Your task to perform on an android device: Go to Google maps Image 0: 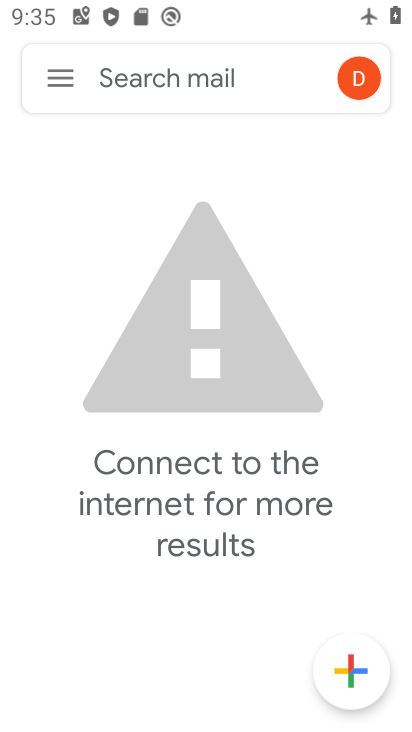
Step 0: press home button
Your task to perform on an android device: Go to Google maps Image 1: 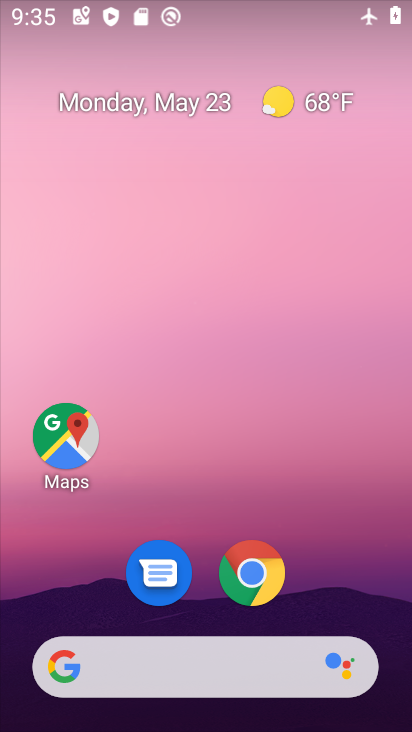
Step 1: drag from (225, 659) to (245, 9)
Your task to perform on an android device: Go to Google maps Image 2: 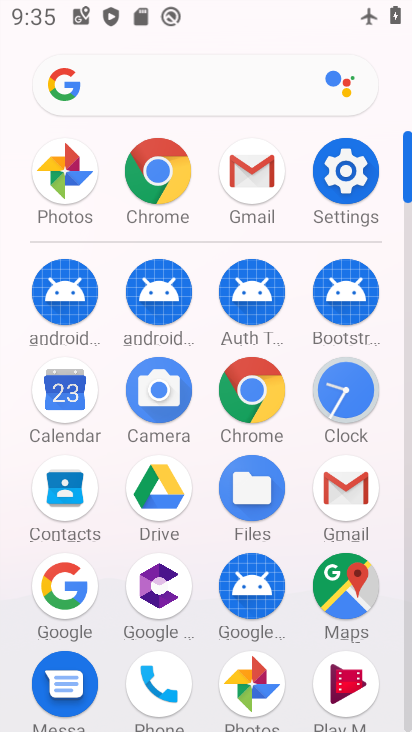
Step 2: click (352, 583)
Your task to perform on an android device: Go to Google maps Image 3: 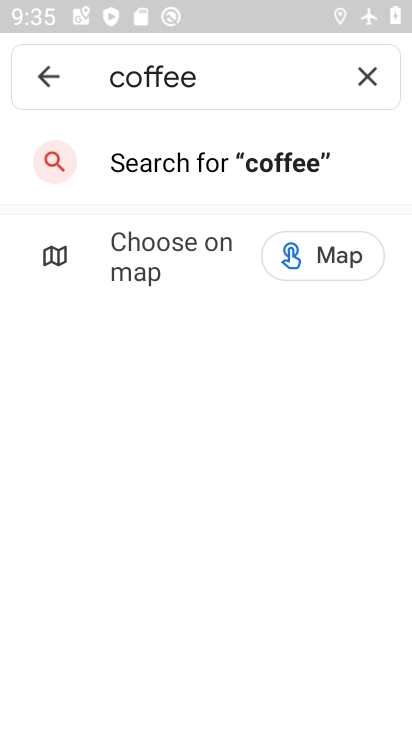
Step 3: click (374, 78)
Your task to perform on an android device: Go to Google maps Image 4: 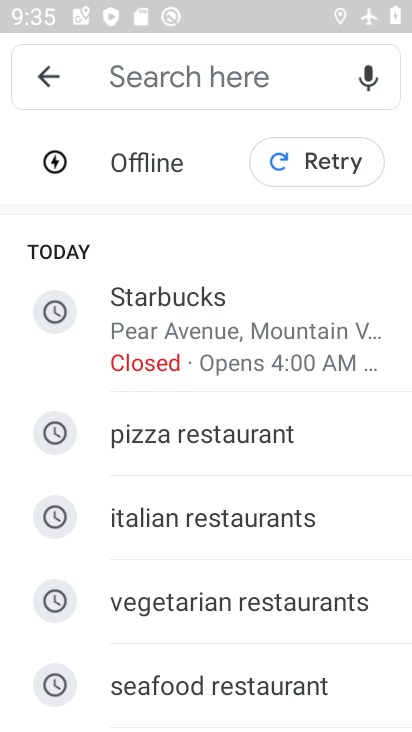
Step 4: click (44, 84)
Your task to perform on an android device: Go to Google maps Image 5: 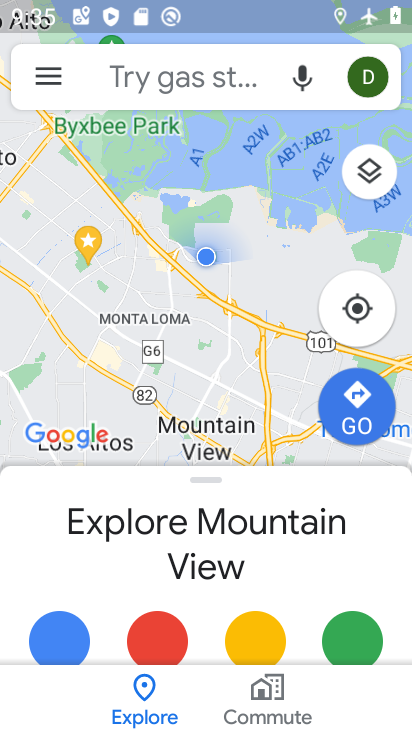
Step 5: task complete